Your task to perform on an android device: turn pop-ups off in chrome Image 0: 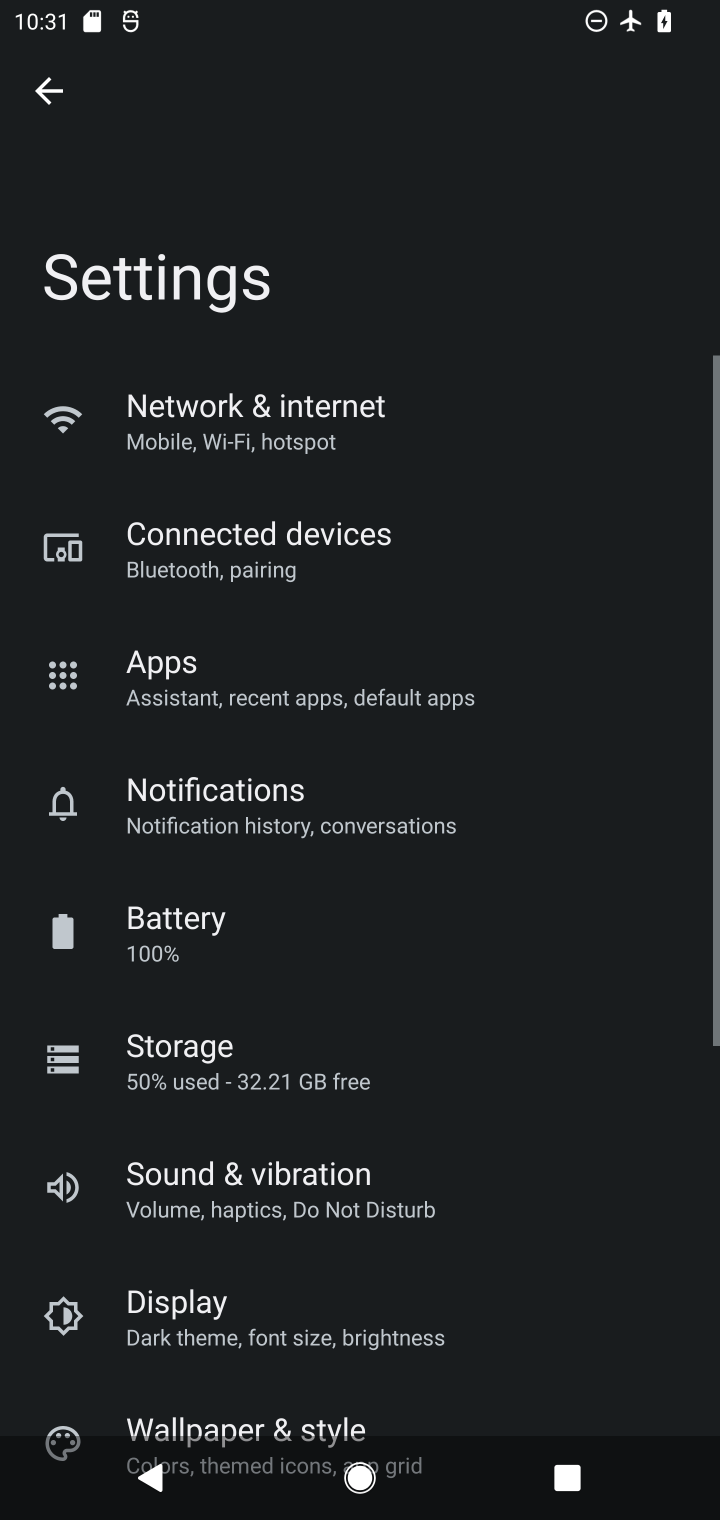
Step 0: press home button
Your task to perform on an android device: turn pop-ups off in chrome Image 1: 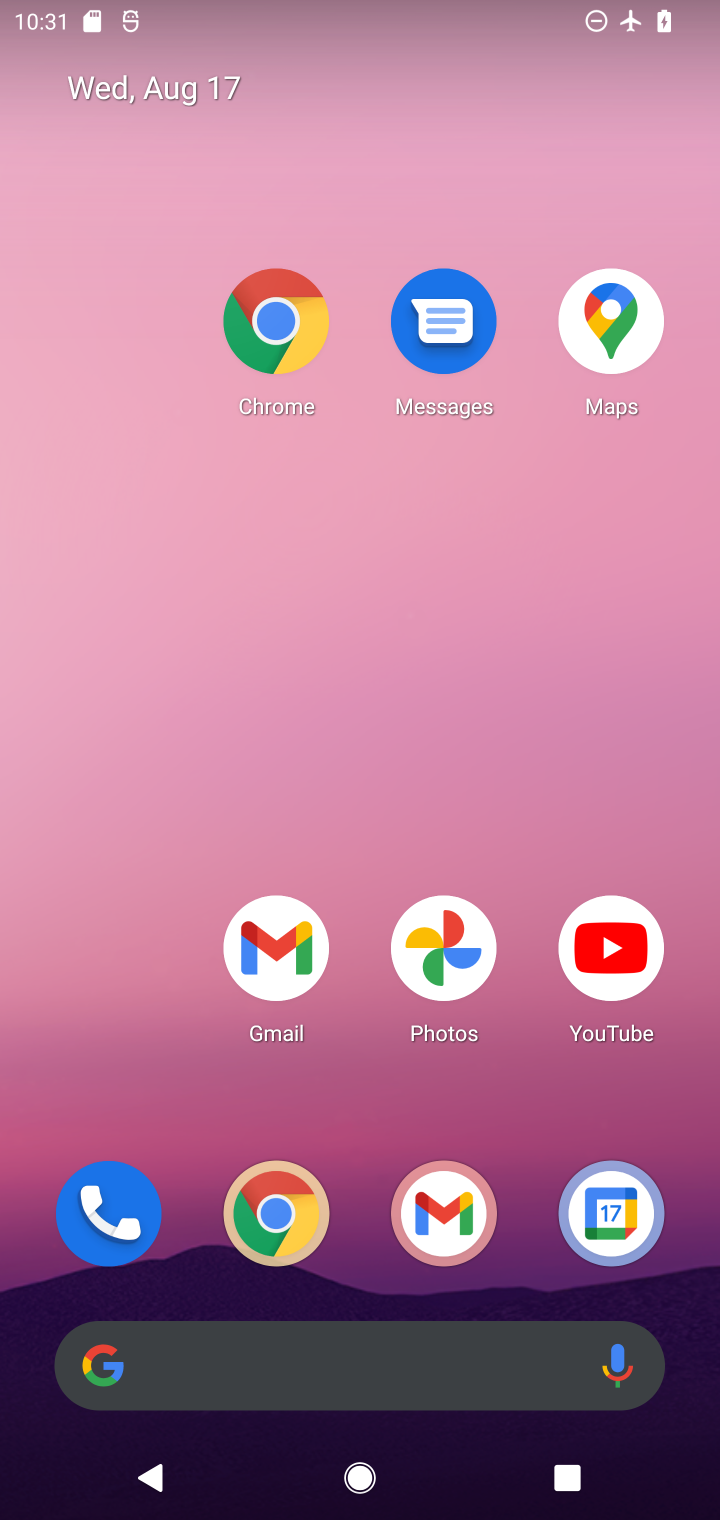
Step 1: click (240, 1258)
Your task to perform on an android device: turn pop-ups off in chrome Image 2: 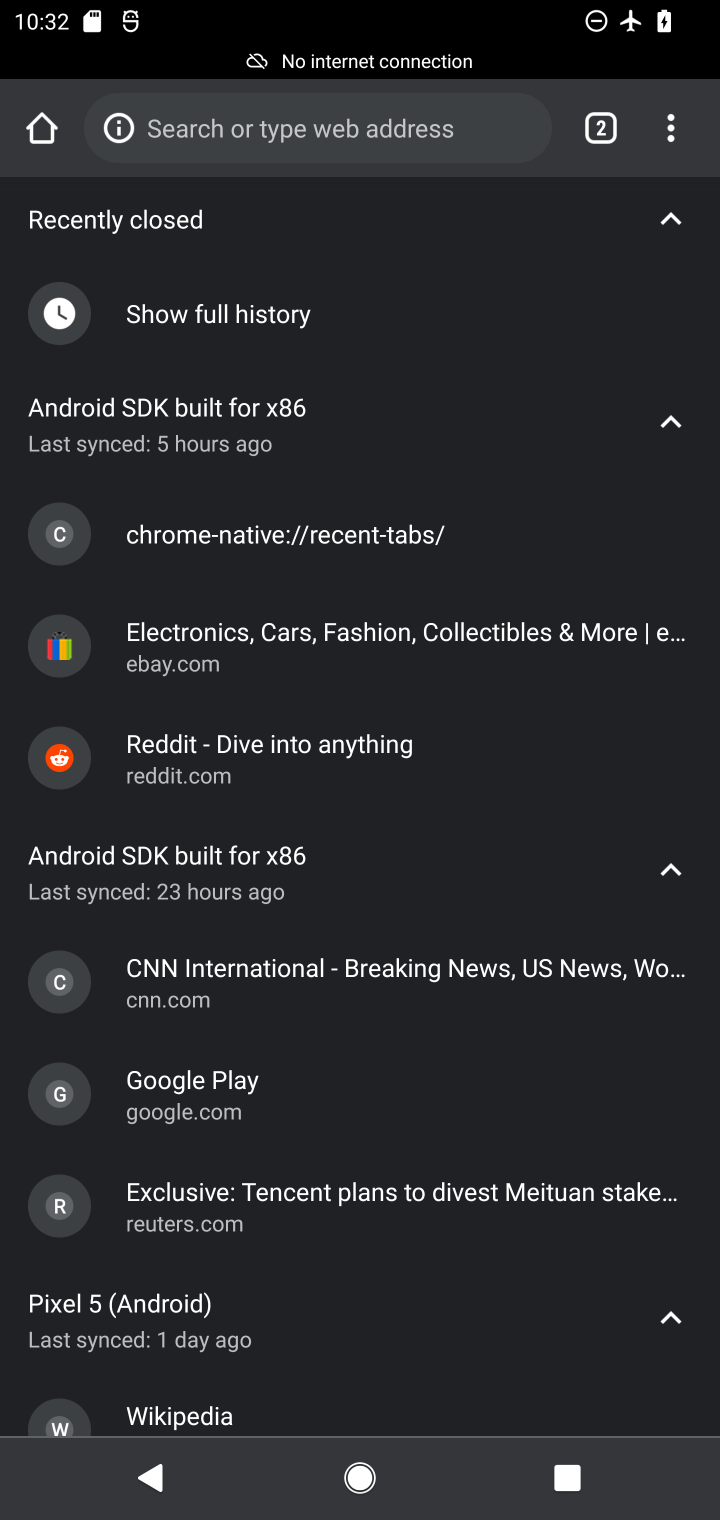
Step 2: click (679, 130)
Your task to perform on an android device: turn pop-ups off in chrome Image 3: 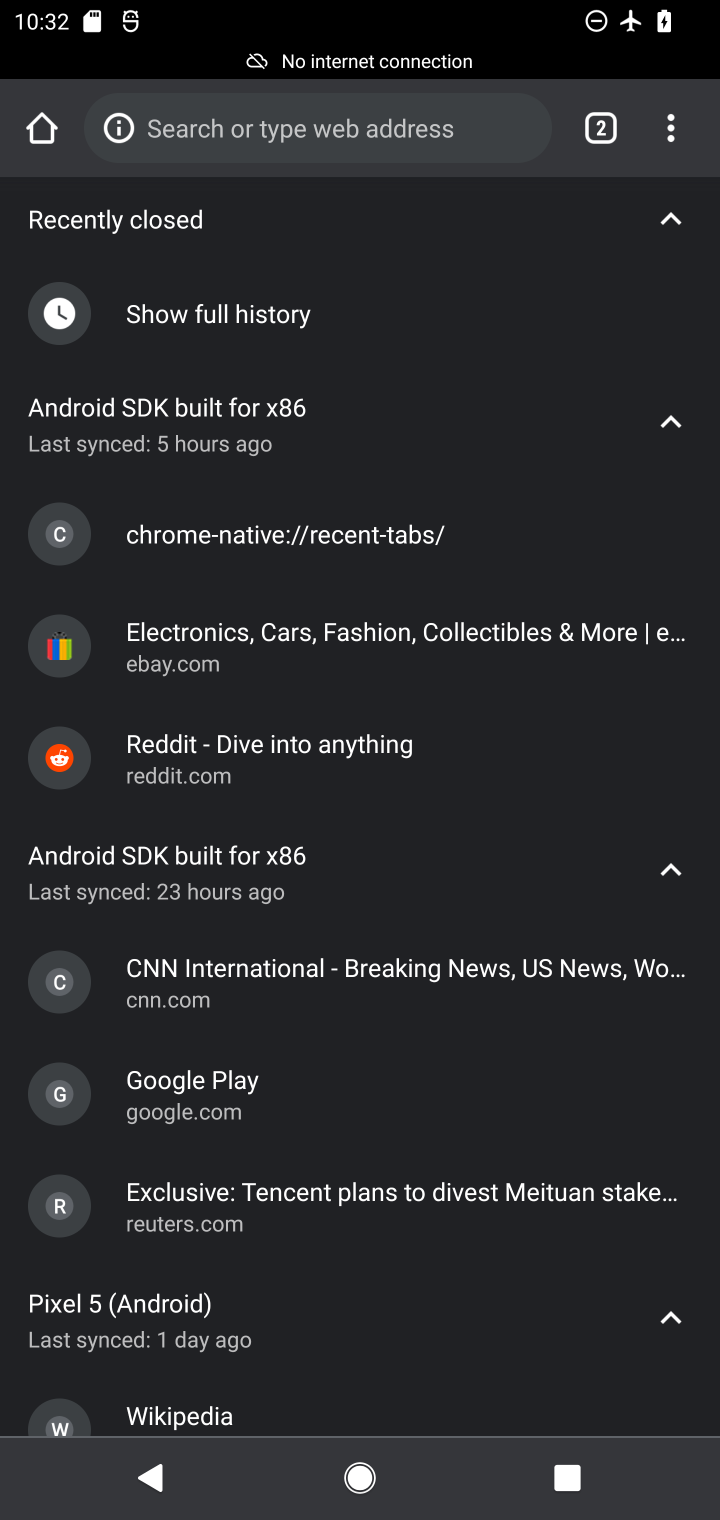
Step 3: click (666, 140)
Your task to perform on an android device: turn pop-ups off in chrome Image 4: 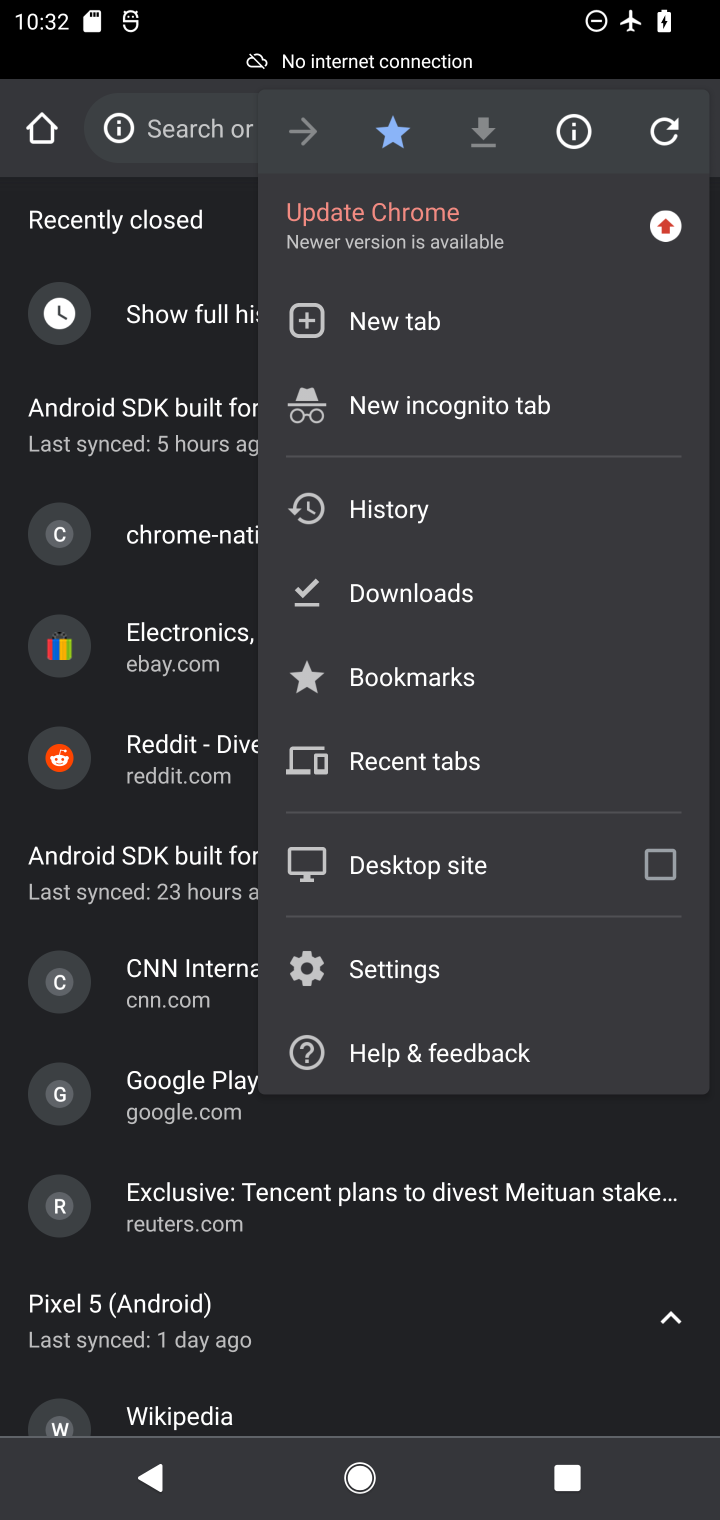
Step 4: click (398, 961)
Your task to perform on an android device: turn pop-ups off in chrome Image 5: 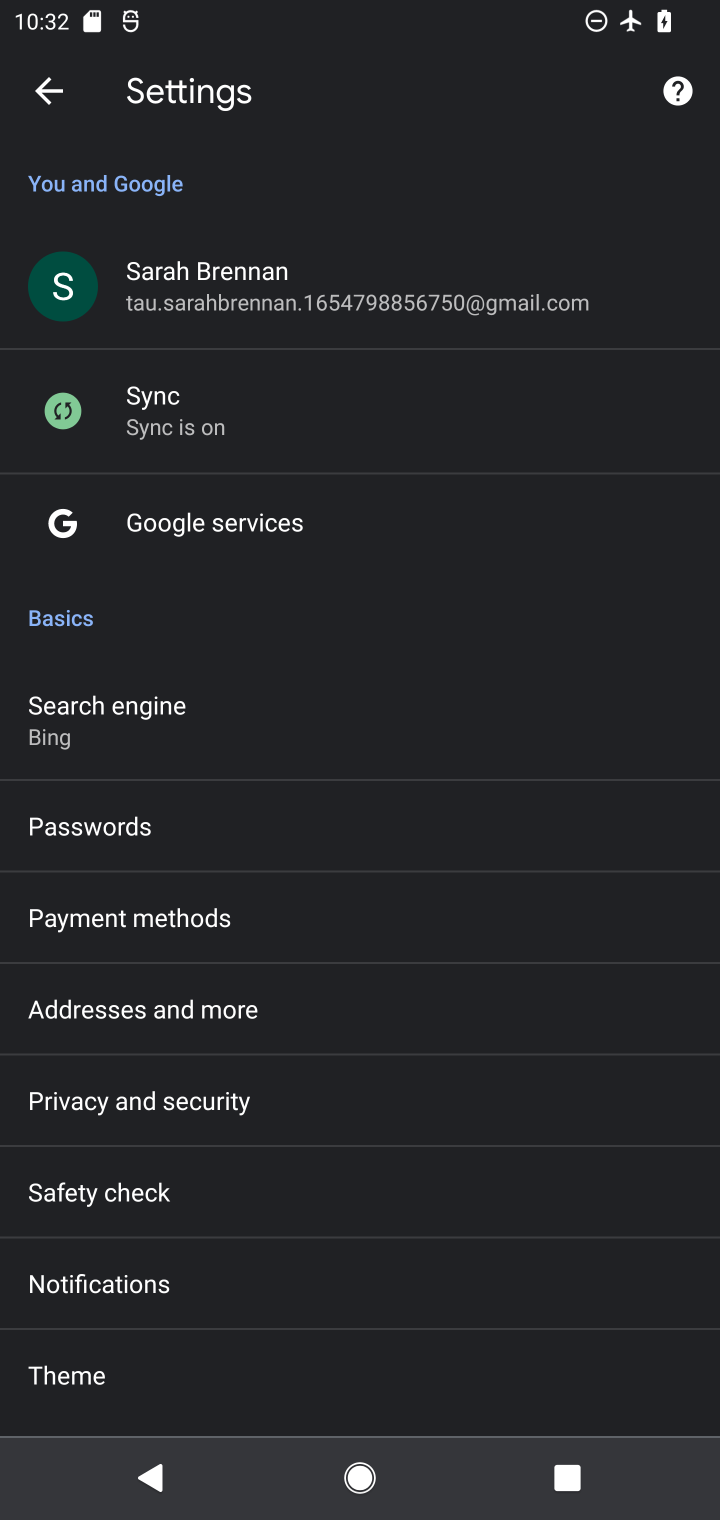
Step 5: drag from (356, 1272) to (292, 760)
Your task to perform on an android device: turn pop-ups off in chrome Image 6: 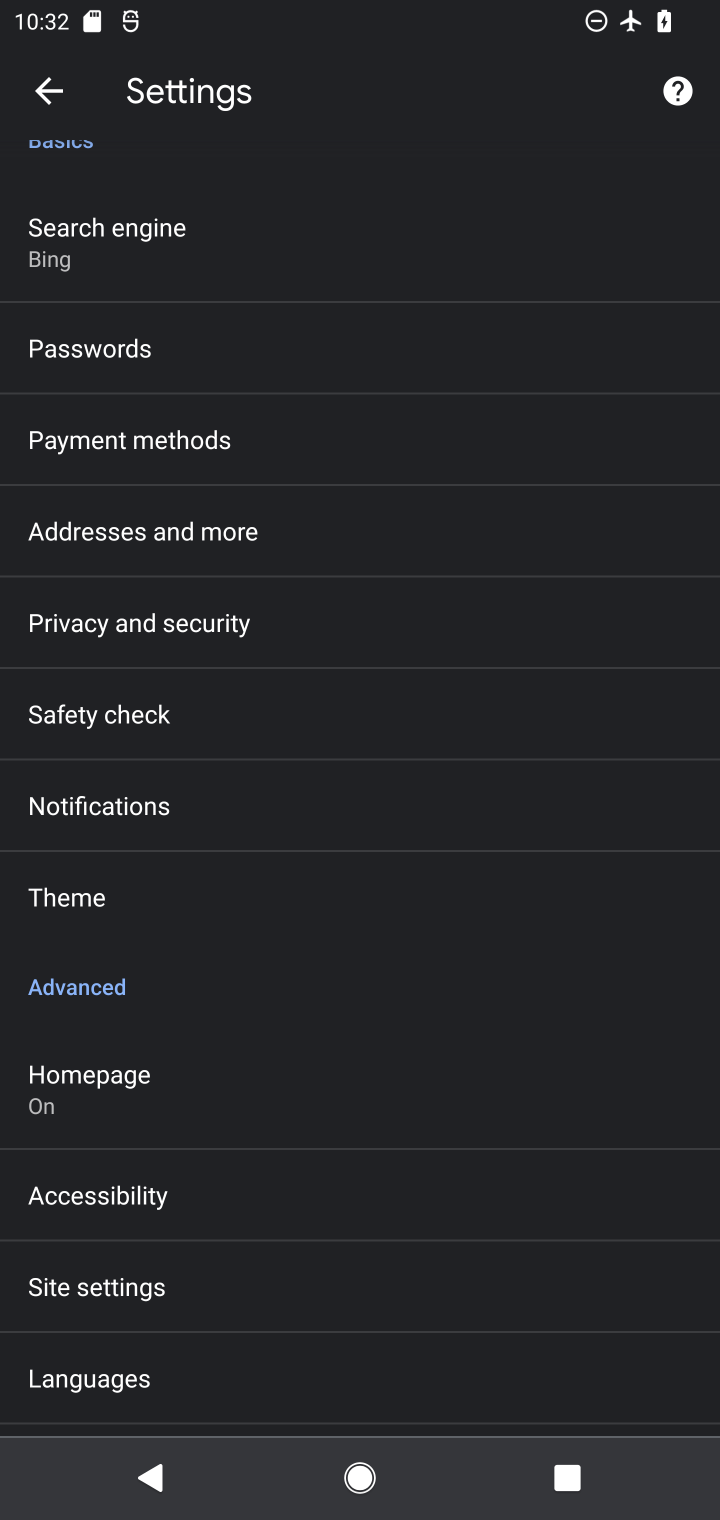
Step 6: click (256, 1299)
Your task to perform on an android device: turn pop-ups off in chrome Image 7: 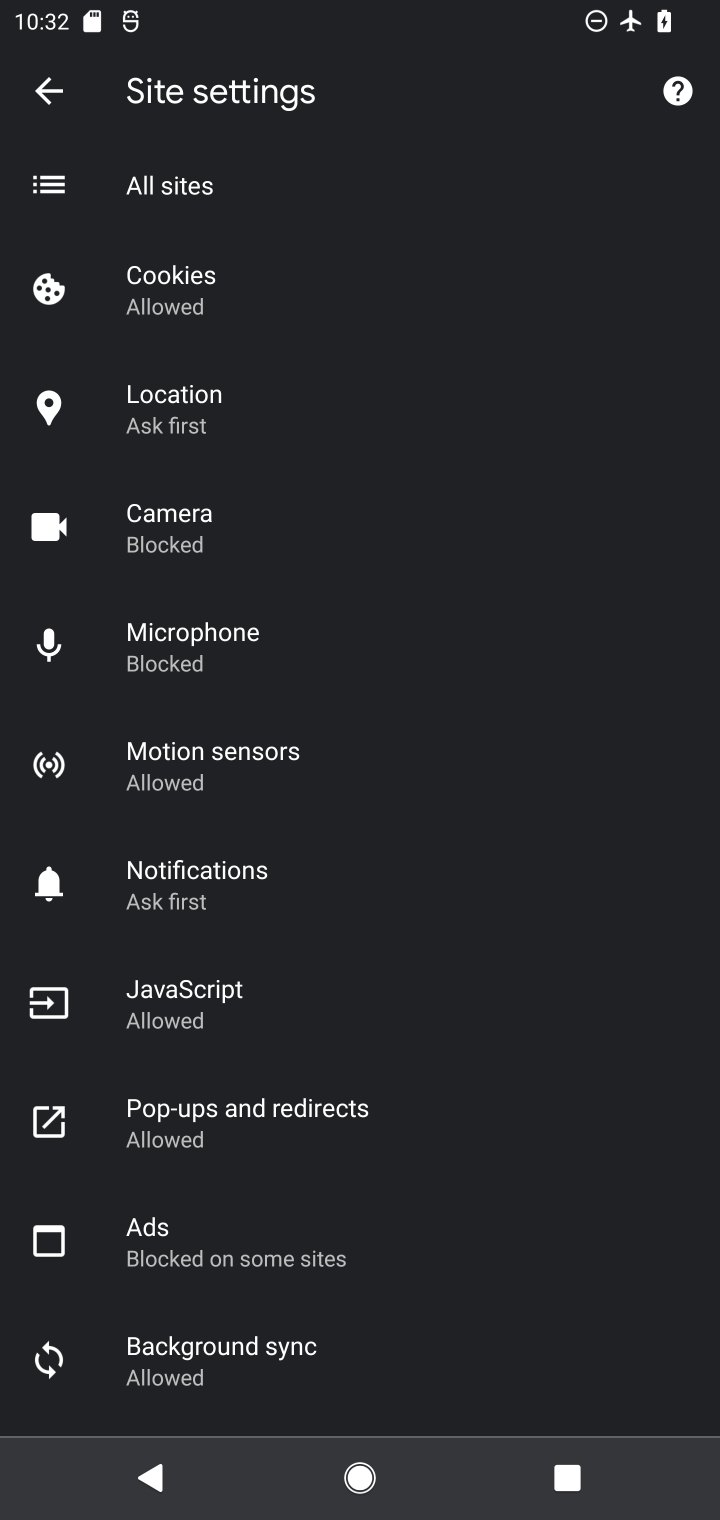
Step 7: task complete